Your task to perform on an android device: What's the weather today? Image 0: 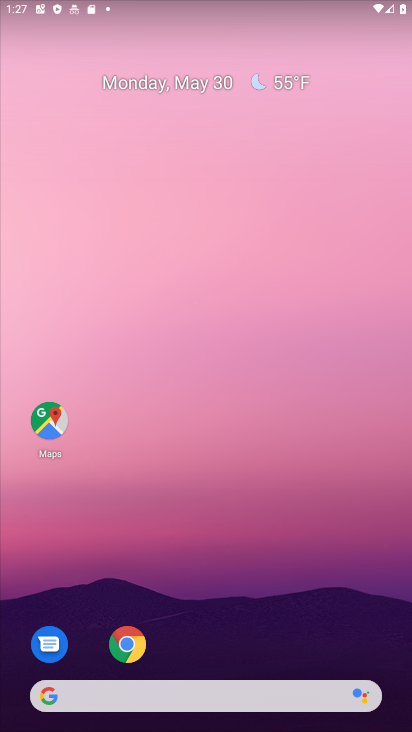
Step 0: drag from (309, 628) to (311, 168)
Your task to perform on an android device: What's the weather today? Image 1: 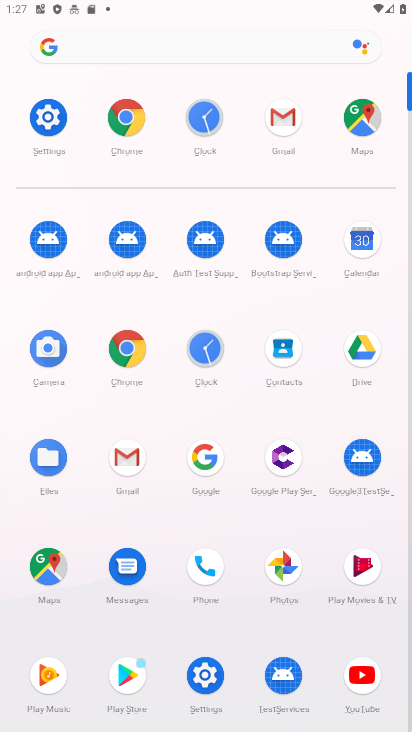
Step 1: click (217, 51)
Your task to perform on an android device: What's the weather today? Image 2: 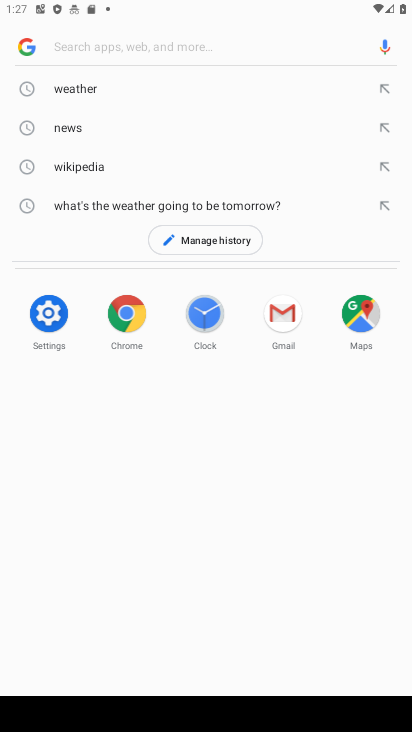
Step 2: click (179, 81)
Your task to perform on an android device: What's the weather today? Image 3: 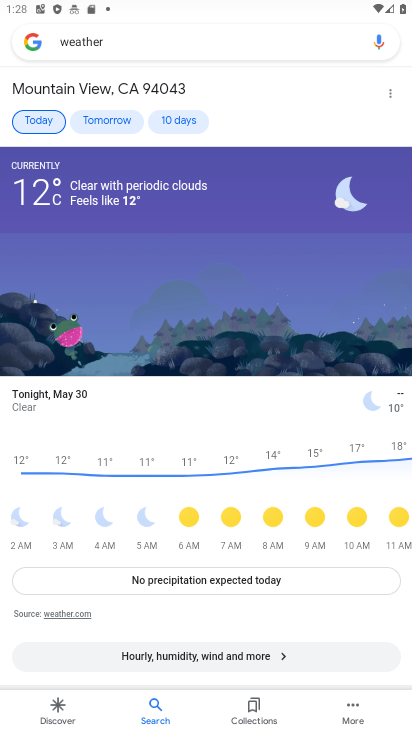
Step 3: task complete